Your task to perform on an android device: find snoozed emails in the gmail app Image 0: 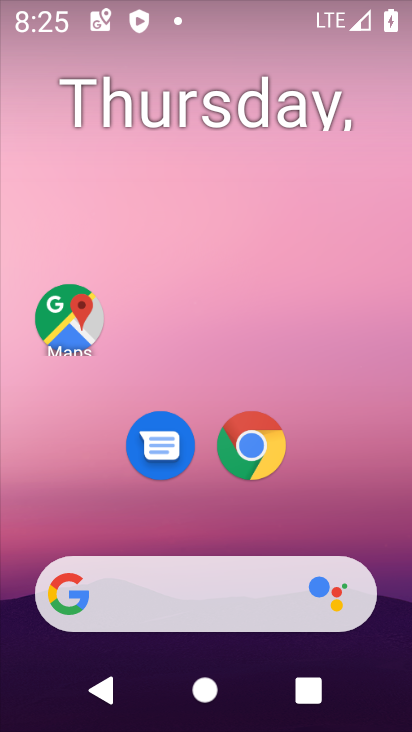
Step 0: drag from (393, 629) to (319, 91)
Your task to perform on an android device: find snoozed emails in the gmail app Image 1: 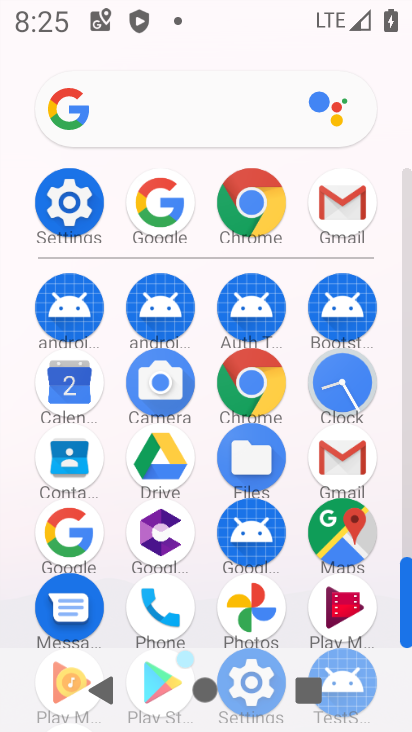
Step 1: click (330, 457)
Your task to perform on an android device: find snoozed emails in the gmail app Image 2: 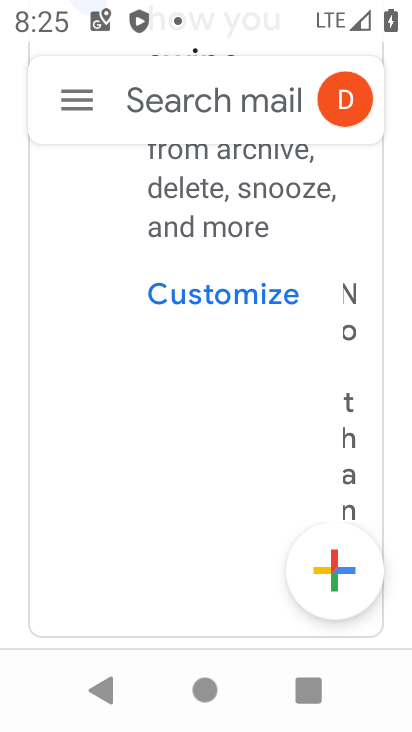
Step 2: click (69, 105)
Your task to perform on an android device: find snoozed emails in the gmail app Image 3: 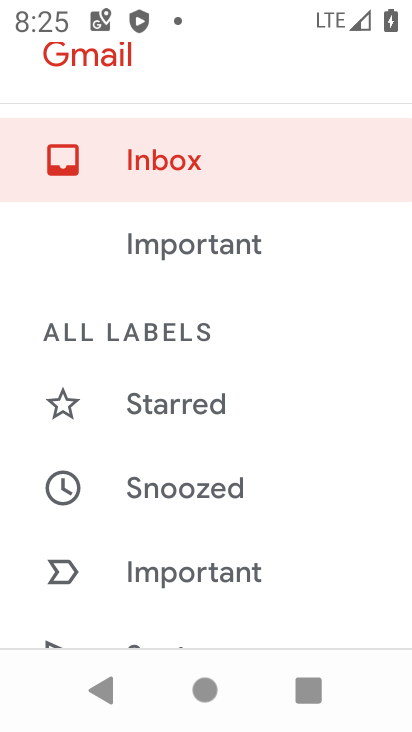
Step 3: click (204, 493)
Your task to perform on an android device: find snoozed emails in the gmail app Image 4: 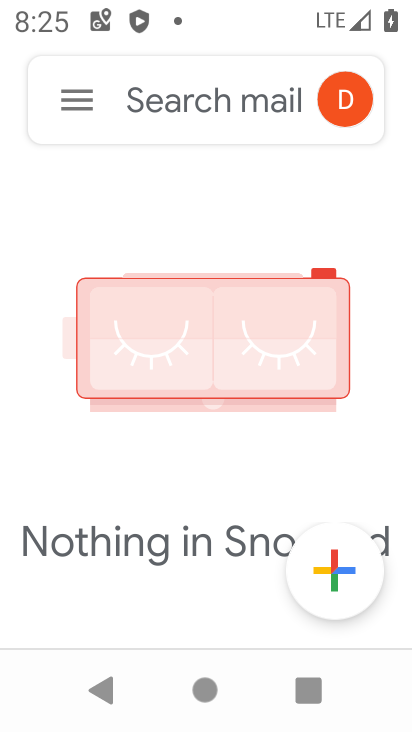
Step 4: task complete